Your task to perform on an android device: move a message to another label in the gmail app Image 0: 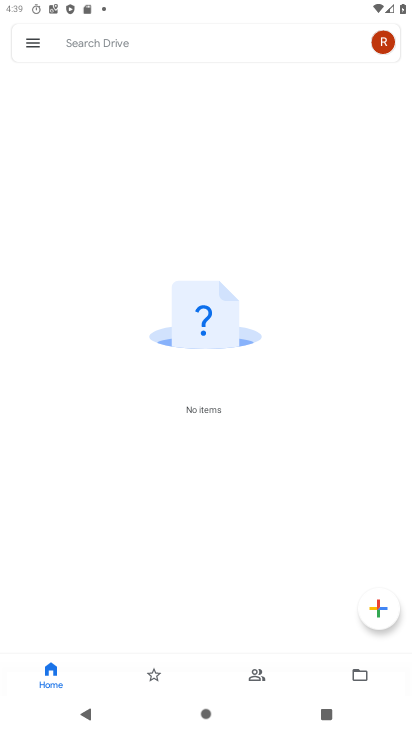
Step 0: press home button
Your task to perform on an android device: move a message to another label in the gmail app Image 1: 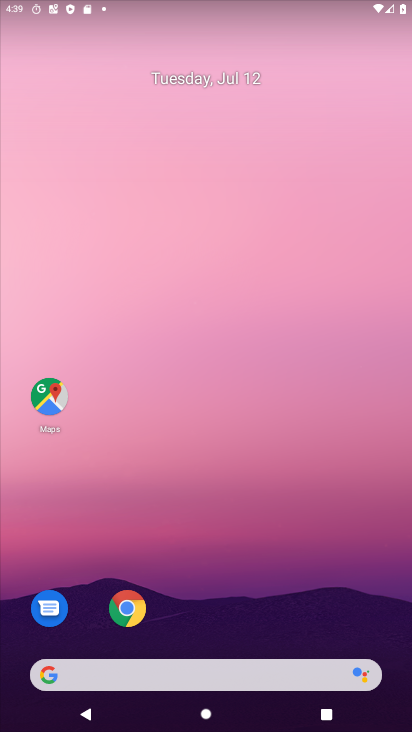
Step 1: drag from (219, 610) to (162, 90)
Your task to perform on an android device: move a message to another label in the gmail app Image 2: 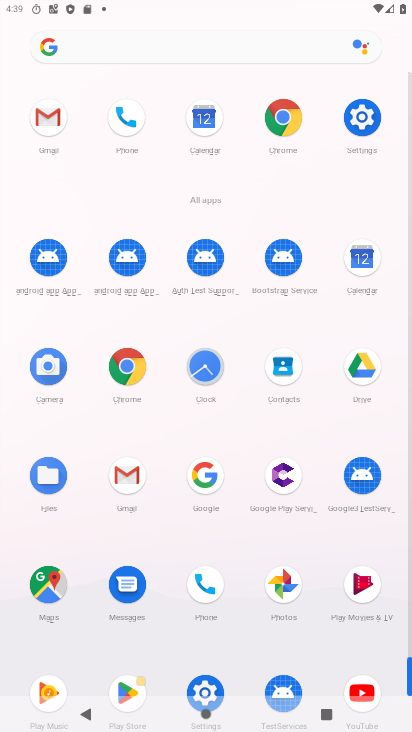
Step 2: click (53, 125)
Your task to perform on an android device: move a message to another label in the gmail app Image 3: 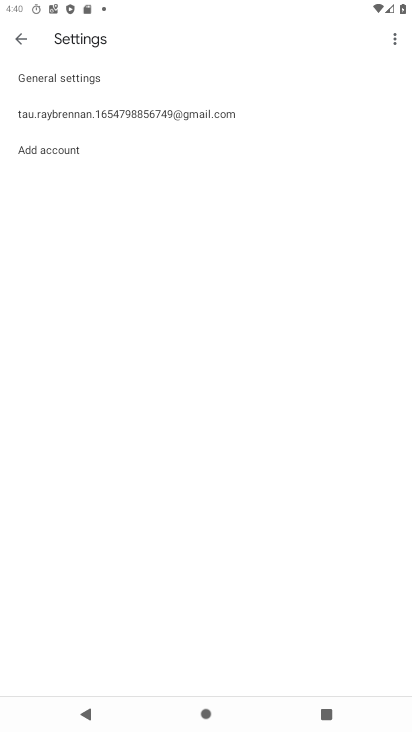
Step 3: click (29, 38)
Your task to perform on an android device: move a message to another label in the gmail app Image 4: 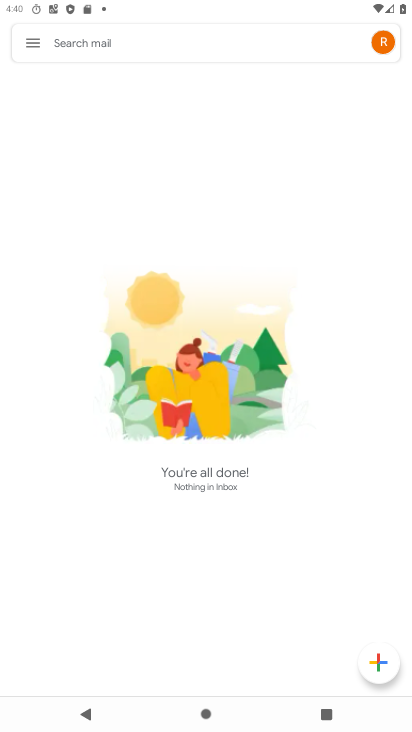
Step 4: task complete